Your task to perform on an android device: allow cookies in the chrome app Image 0: 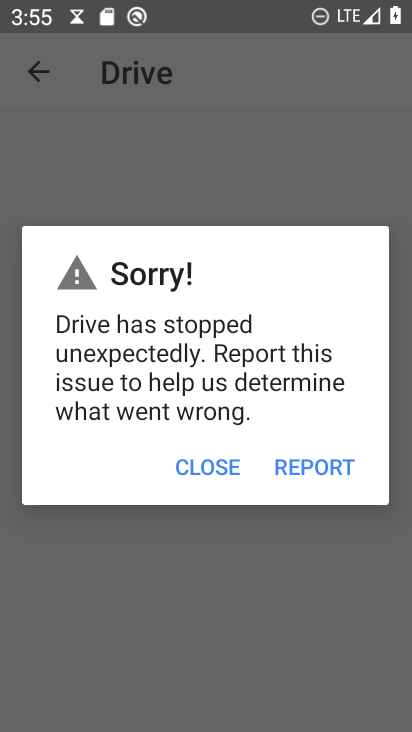
Step 0: press home button
Your task to perform on an android device: allow cookies in the chrome app Image 1: 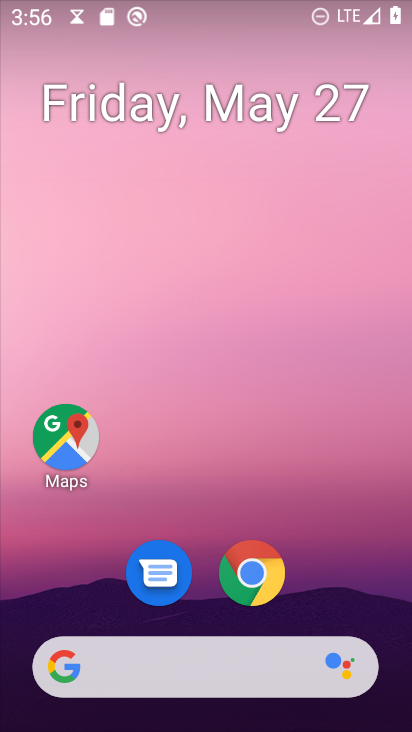
Step 1: click (245, 560)
Your task to perform on an android device: allow cookies in the chrome app Image 2: 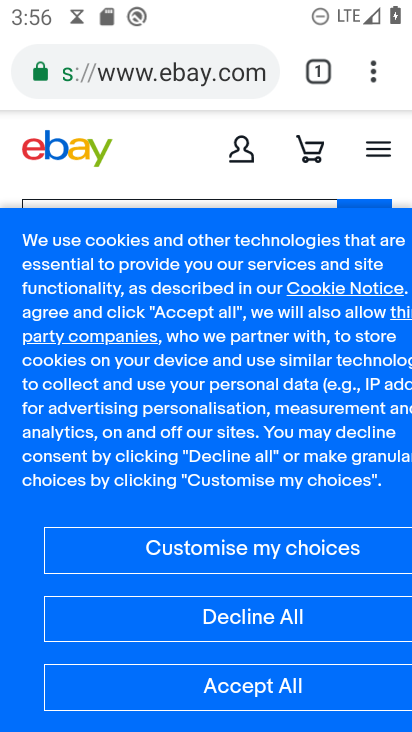
Step 2: click (375, 78)
Your task to perform on an android device: allow cookies in the chrome app Image 3: 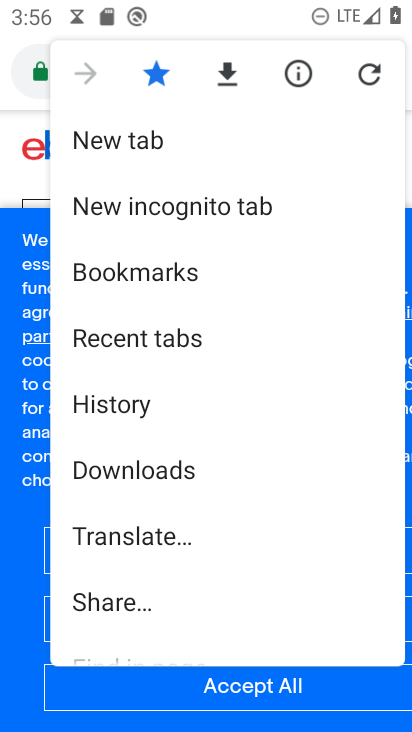
Step 3: drag from (218, 600) to (243, 155)
Your task to perform on an android device: allow cookies in the chrome app Image 4: 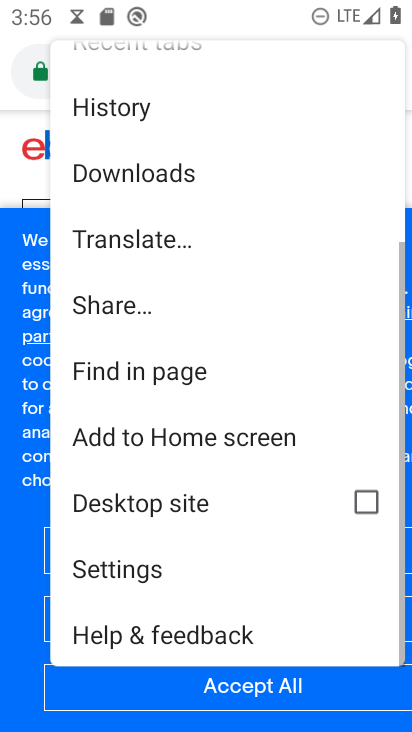
Step 4: click (136, 572)
Your task to perform on an android device: allow cookies in the chrome app Image 5: 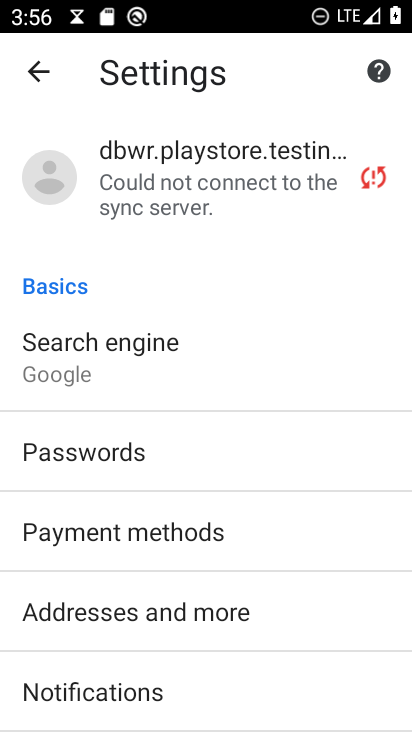
Step 5: drag from (136, 623) to (155, 256)
Your task to perform on an android device: allow cookies in the chrome app Image 6: 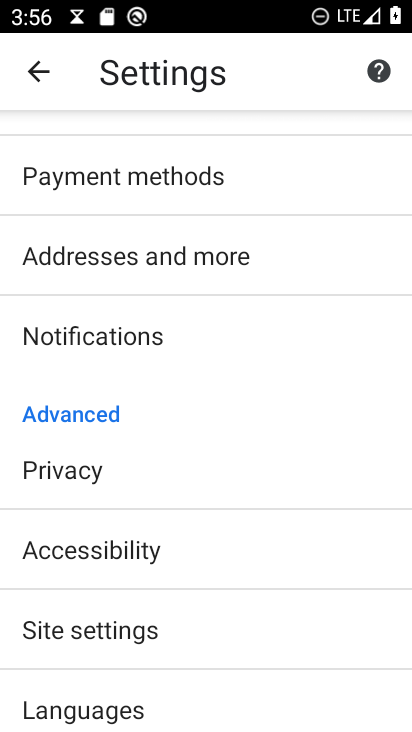
Step 6: click (152, 622)
Your task to perform on an android device: allow cookies in the chrome app Image 7: 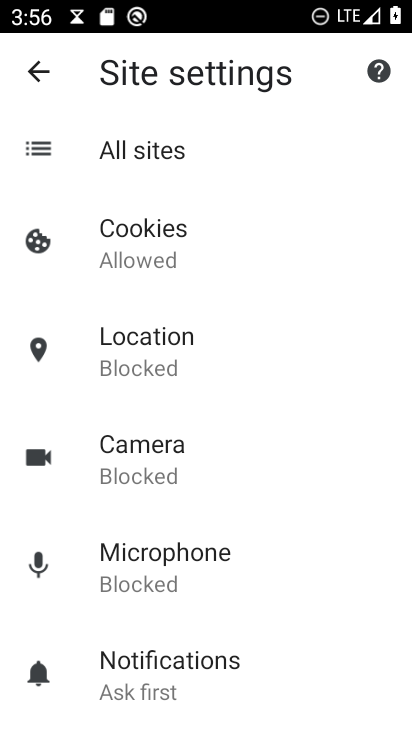
Step 7: click (140, 260)
Your task to perform on an android device: allow cookies in the chrome app Image 8: 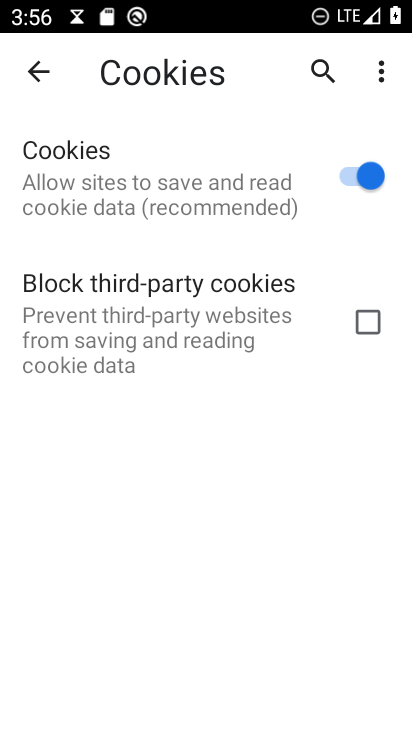
Step 8: task complete